Your task to perform on an android device: turn pop-ups on in chrome Image 0: 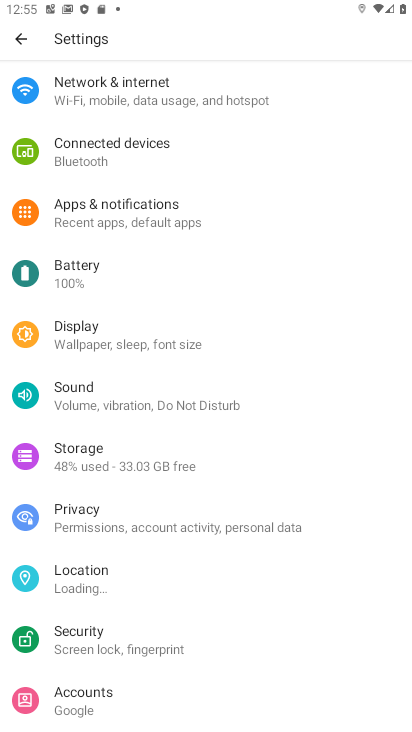
Step 0: press home button
Your task to perform on an android device: turn pop-ups on in chrome Image 1: 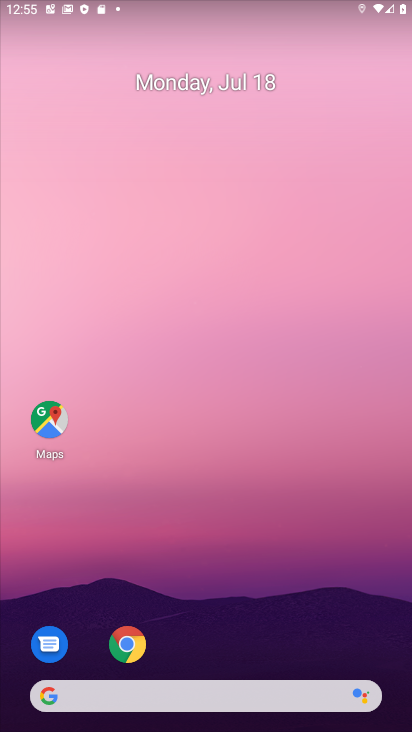
Step 1: click (121, 643)
Your task to perform on an android device: turn pop-ups on in chrome Image 2: 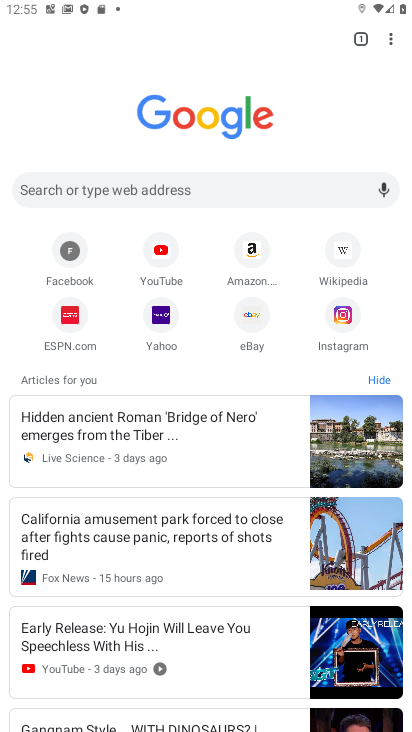
Step 2: click (390, 31)
Your task to perform on an android device: turn pop-ups on in chrome Image 3: 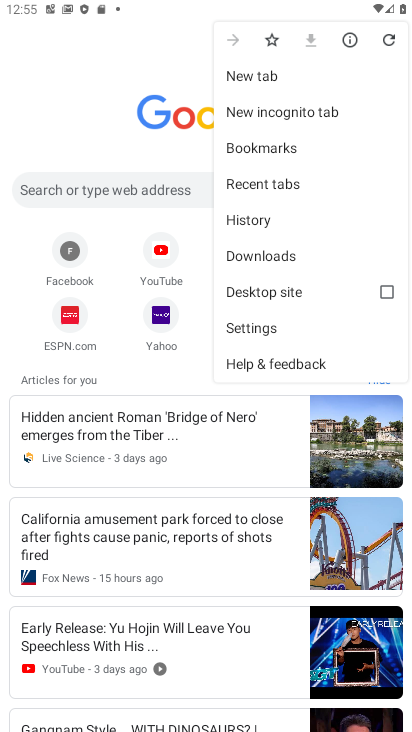
Step 3: click (294, 323)
Your task to perform on an android device: turn pop-ups on in chrome Image 4: 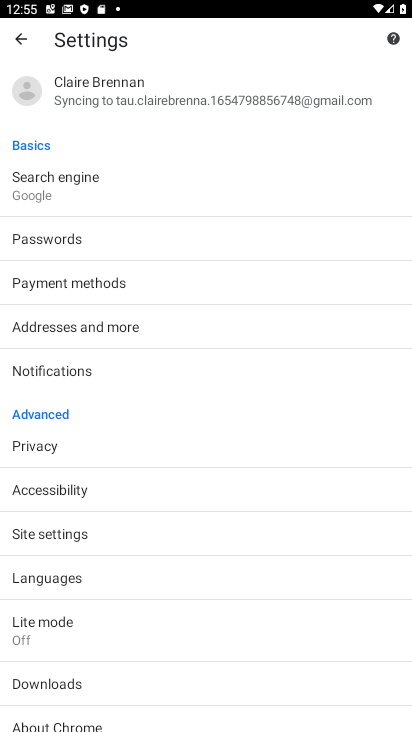
Step 4: click (84, 549)
Your task to perform on an android device: turn pop-ups on in chrome Image 5: 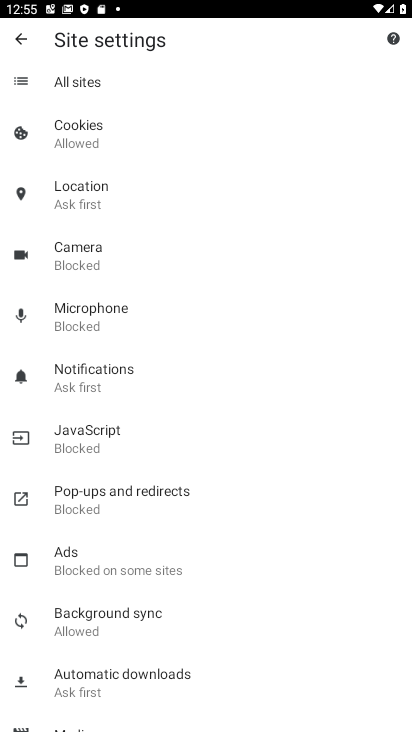
Step 5: click (109, 487)
Your task to perform on an android device: turn pop-ups on in chrome Image 6: 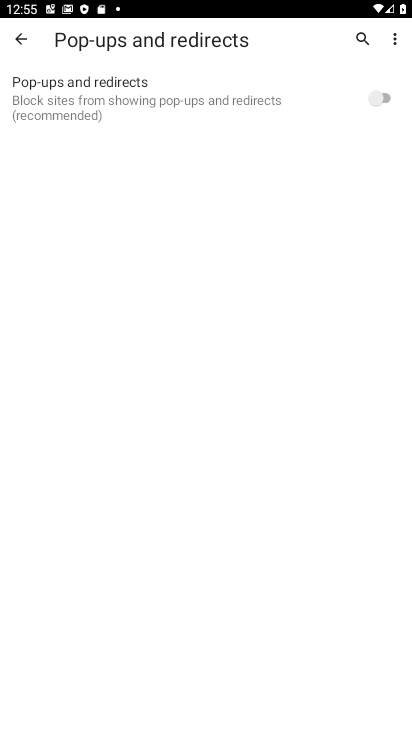
Step 6: click (386, 101)
Your task to perform on an android device: turn pop-ups on in chrome Image 7: 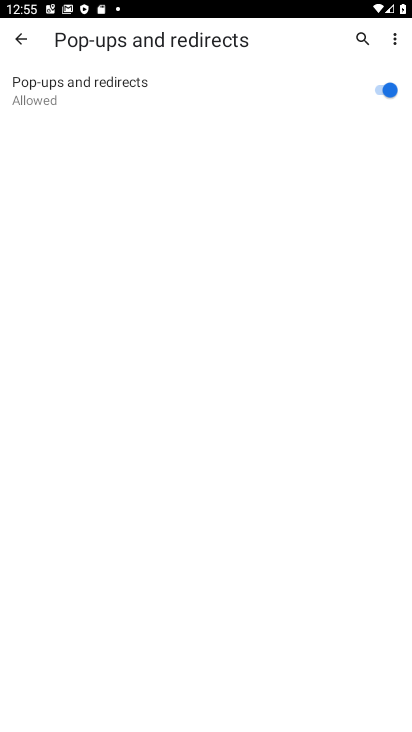
Step 7: task complete